Your task to perform on an android device: turn off notifications settings in the gmail app Image 0: 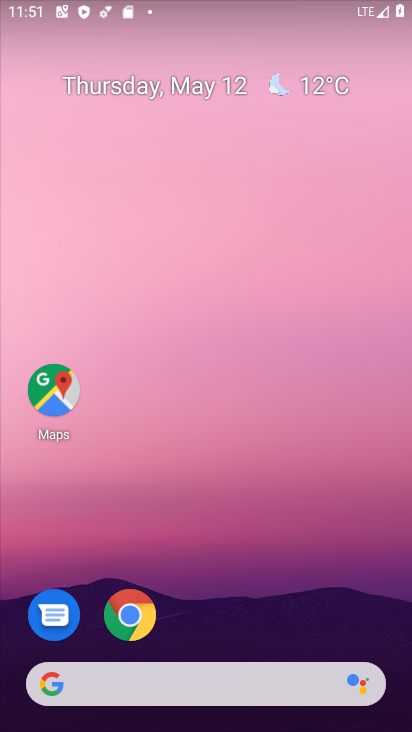
Step 0: drag from (200, 623) to (232, 225)
Your task to perform on an android device: turn off notifications settings in the gmail app Image 1: 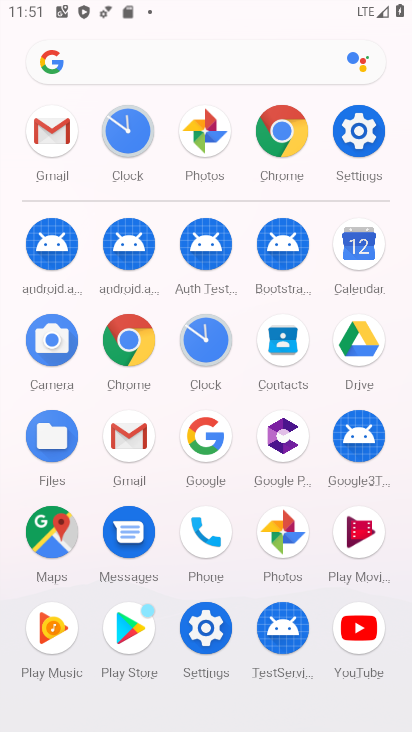
Step 1: click (32, 138)
Your task to perform on an android device: turn off notifications settings in the gmail app Image 2: 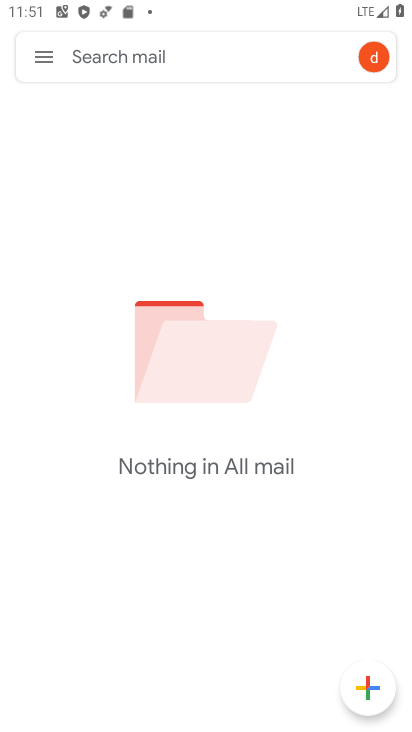
Step 2: click (41, 45)
Your task to perform on an android device: turn off notifications settings in the gmail app Image 3: 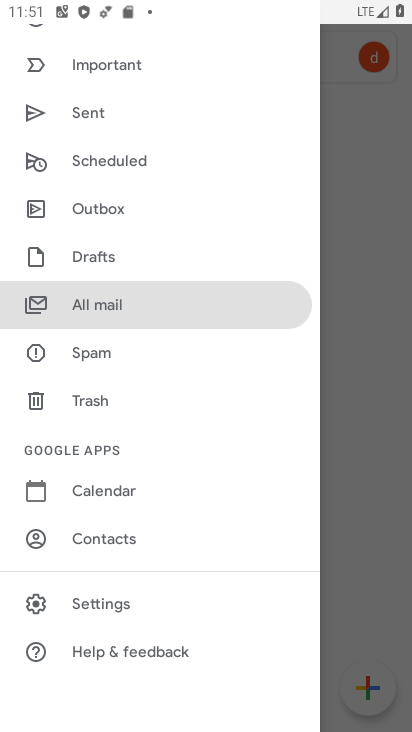
Step 3: click (106, 602)
Your task to perform on an android device: turn off notifications settings in the gmail app Image 4: 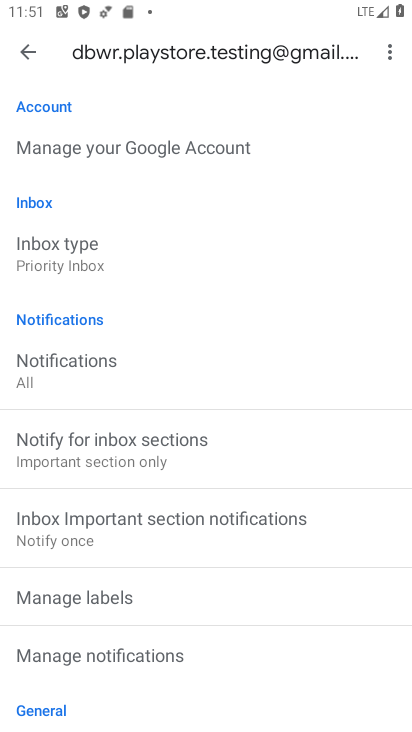
Step 4: click (150, 651)
Your task to perform on an android device: turn off notifications settings in the gmail app Image 5: 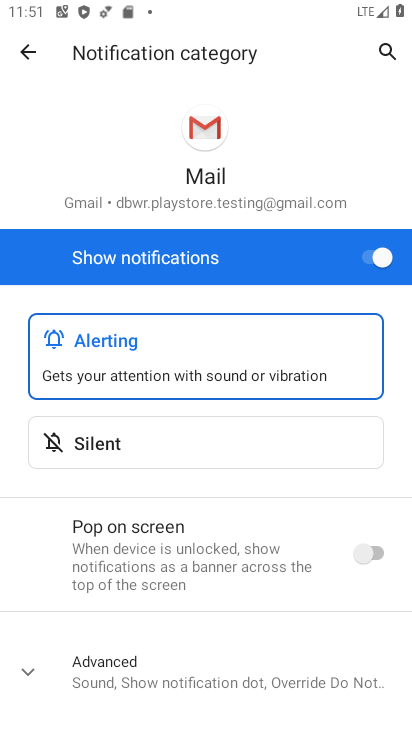
Step 5: click (359, 264)
Your task to perform on an android device: turn off notifications settings in the gmail app Image 6: 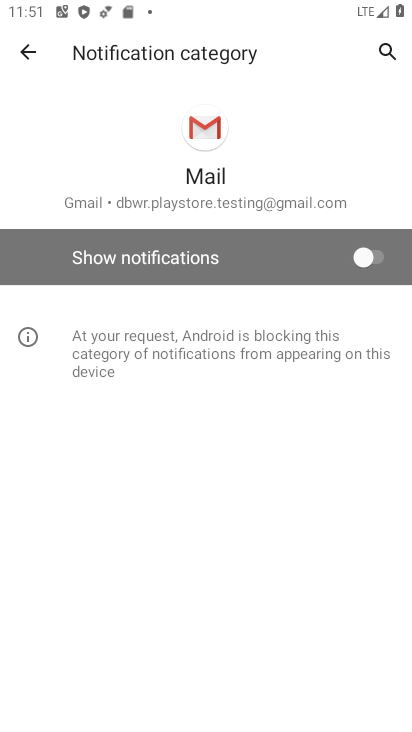
Step 6: task complete